Your task to perform on an android device: Go to privacy settings Image 0: 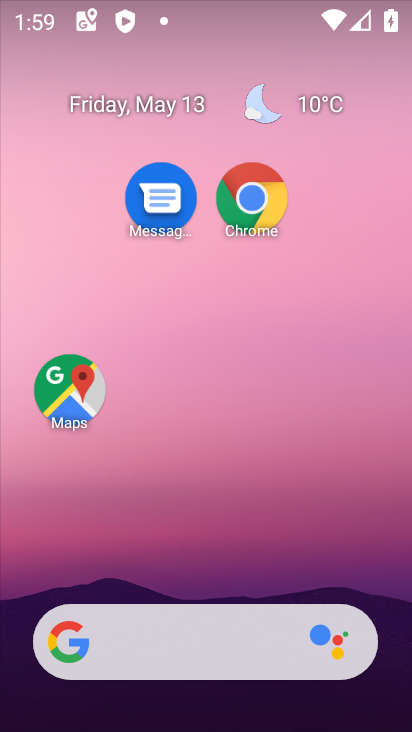
Step 0: click (83, 393)
Your task to perform on an android device: Go to privacy settings Image 1: 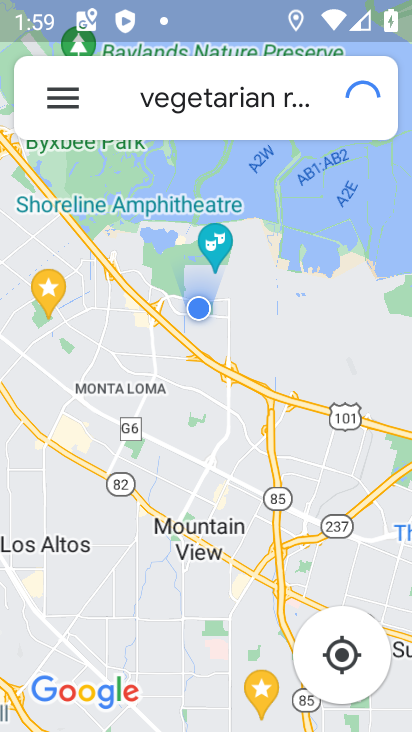
Step 1: press home button
Your task to perform on an android device: Go to privacy settings Image 2: 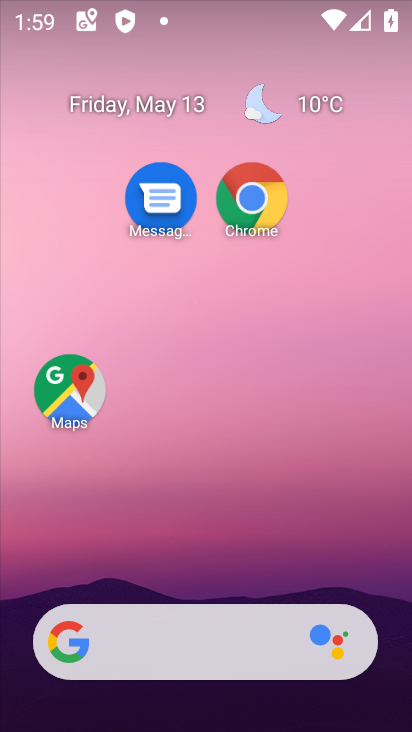
Step 2: drag from (188, 600) to (147, 27)
Your task to perform on an android device: Go to privacy settings Image 3: 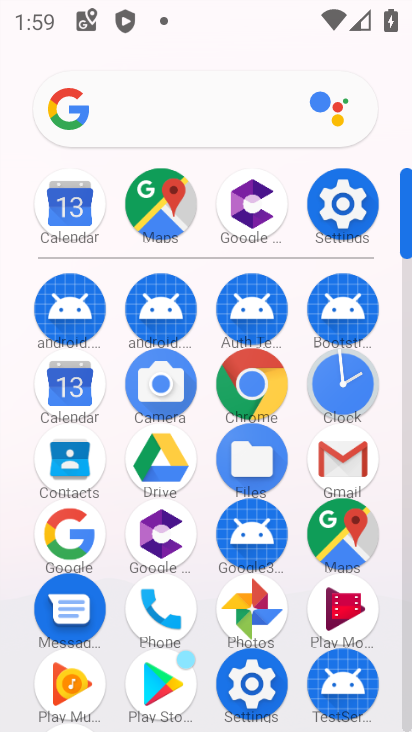
Step 3: click (338, 187)
Your task to perform on an android device: Go to privacy settings Image 4: 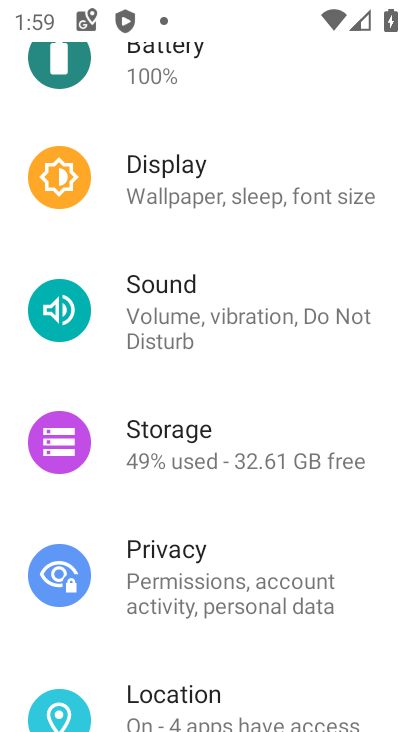
Step 4: click (217, 597)
Your task to perform on an android device: Go to privacy settings Image 5: 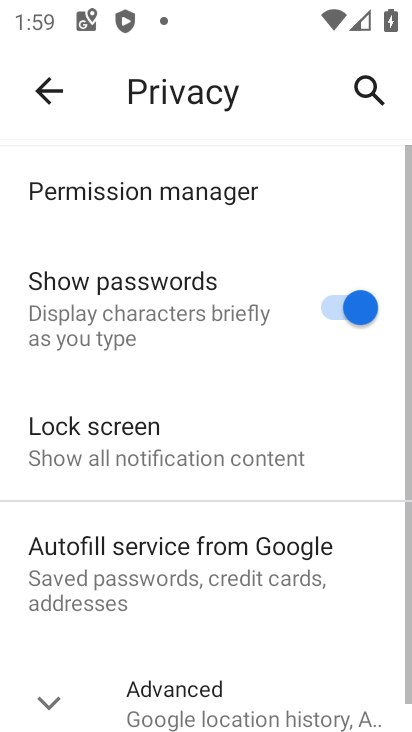
Step 5: task complete